Your task to perform on an android device: turn on improve location accuracy Image 0: 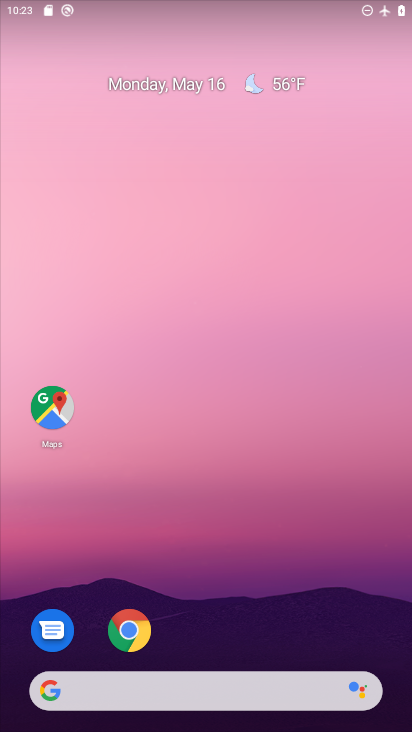
Step 0: drag from (230, 631) to (320, 21)
Your task to perform on an android device: turn on improve location accuracy Image 1: 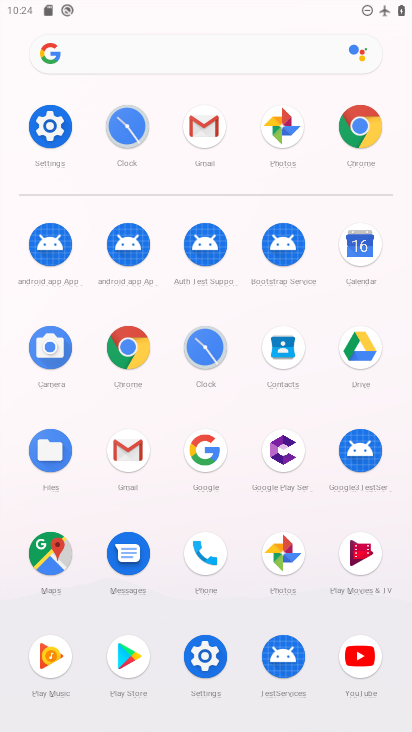
Step 1: click (38, 134)
Your task to perform on an android device: turn on improve location accuracy Image 2: 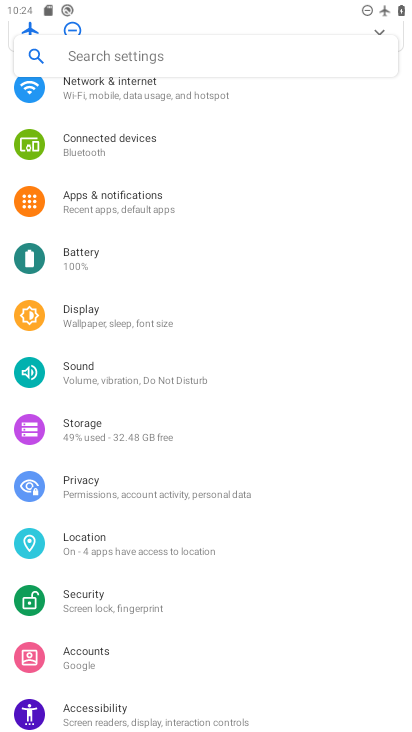
Step 2: click (110, 548)
Your task to perform on an android device: turn on improve location accuracy Image 3: 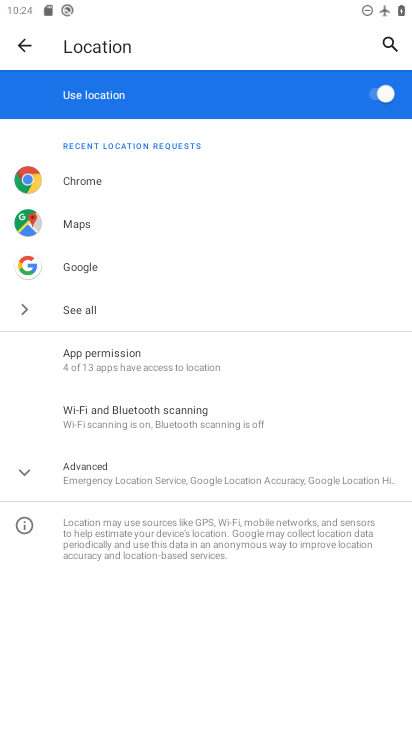
Step 3: click (138, 470)
Your task to perform on an android device: turn on improve location accuracy Image 4: 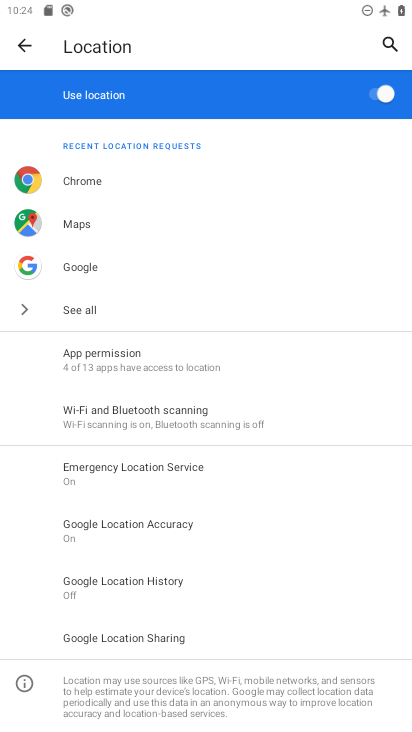
Step 4: click (136, 528)
Your task to perform on an android device: turn on improve location accuracy Image 5: 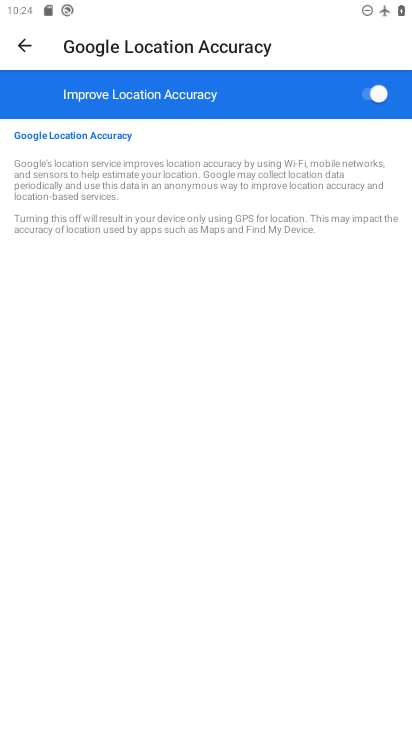
Step 5: task complete